Your task to perform on an android device: clear all cookies in the chrome app Image 0: 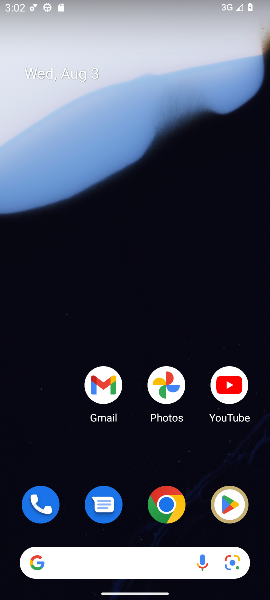
Step 0: drag from (31, 421) to (117, 119)
Your task to perform on an android device: clear all cookies in the chrome app Image 1: 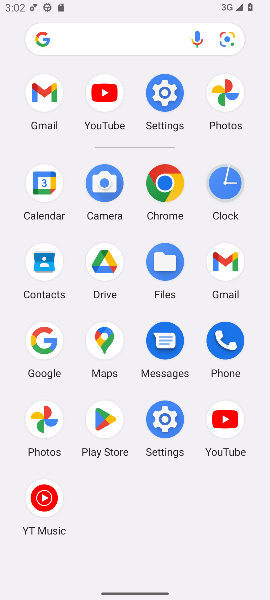
Step 1: click (162, 186)
Your task to perform on an android device: clear all cookies in the chrome app Image 2: 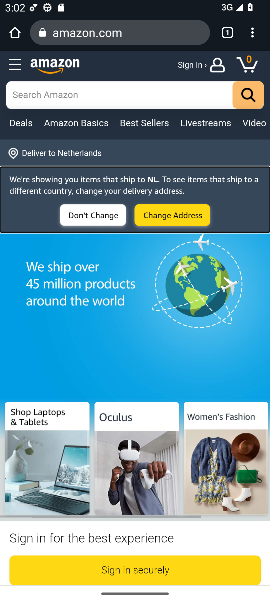
Step 2: drag from (248, 37) to (161, 405)
Your task to perform on an android device: clear all cookies in the chrome app Image 3: 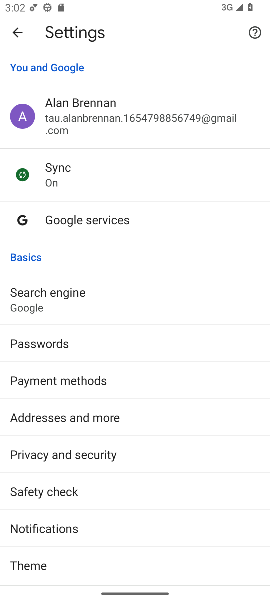
Step 3: click (19, 30)
Your task to perform on an android device: clear all cookies in the chrome app Image 4: 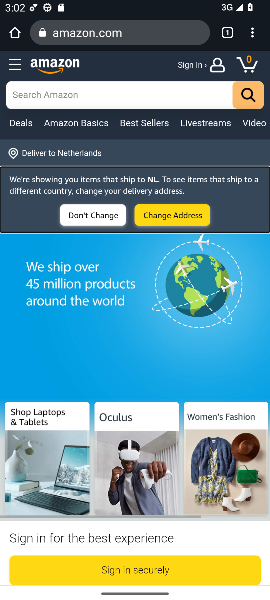
Step 4: drag from (254, 32) to (192, 137)
Your task to perform on an android device: clear all cookies in the chrome app Image 5: 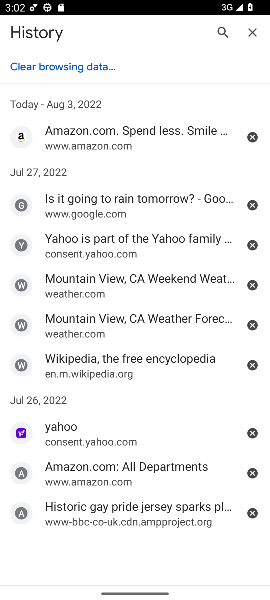
Step 5: click (78, 64)
Your task to perform on an android device: clear all cookies in the chrome app Image 6: 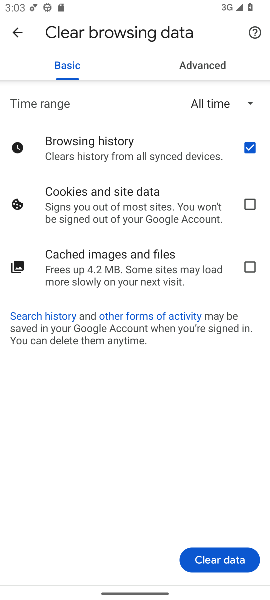
Step 6: click (229, 554)
Your task to perform on an android device: clear all cookies in the chrome app Image 7: 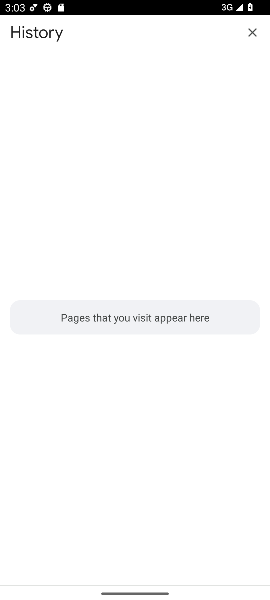
Step 7: task complete